Your task to perform on an android device: check android version Image 0: 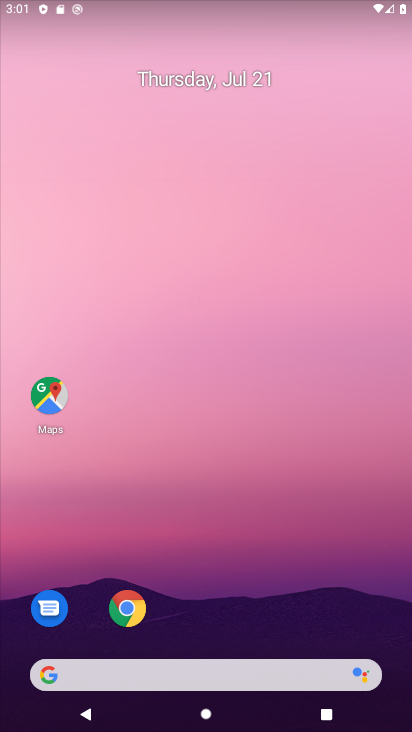
Step 0: drag from (277, 701) to (411, 154)
Your task to perform on an android device: check android version Image 1: 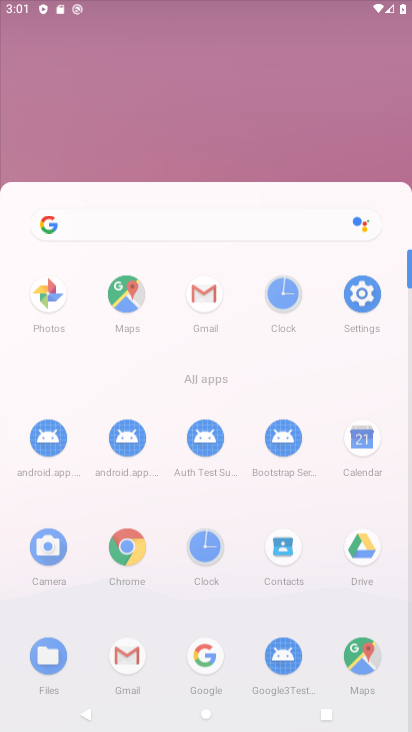
Step 1: click (366, 155)
Your task to perform on an android device: check android version Image 2: 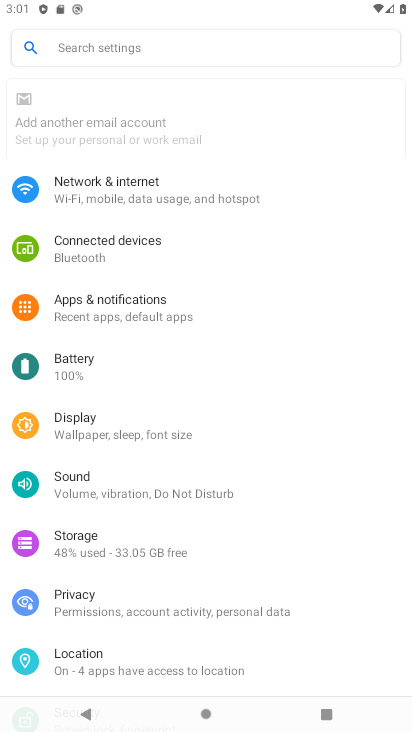
Step 2: drag from (214, 667) to (217, 90)
Your task to perform on an android device: check android version Image 3: 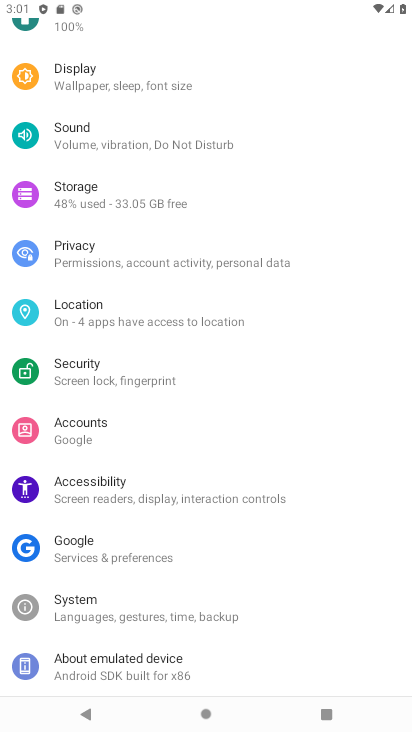
Step 3: click (148, 669)
Your task to perform on an android device: check android version Image 4: 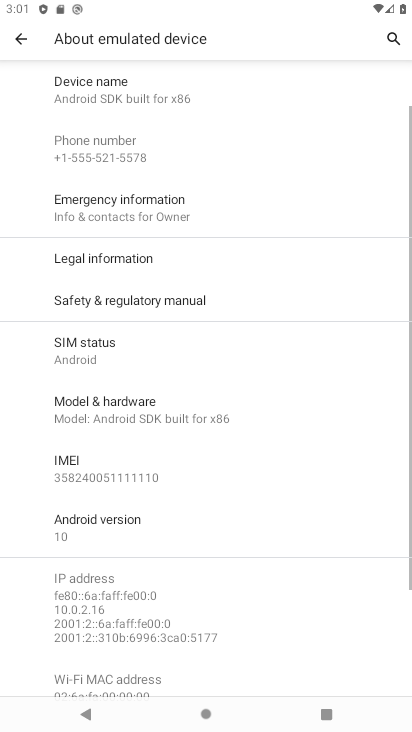
Step 4: click (94, 533)
Your task to perform on an android device: check android version Image 5: 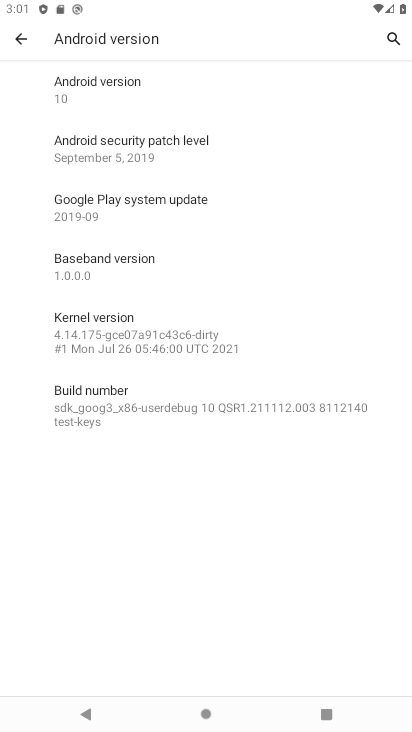
Step 5: task complete